Your task to perform on an android device: turn pop-ups on in chrome Image 0: 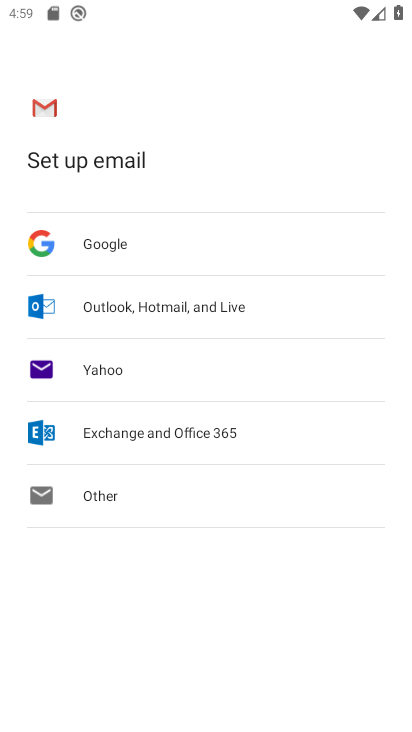
Step 0: press home button
Your task to perform on an android device: turn pop-ups on in chrome Image 1: 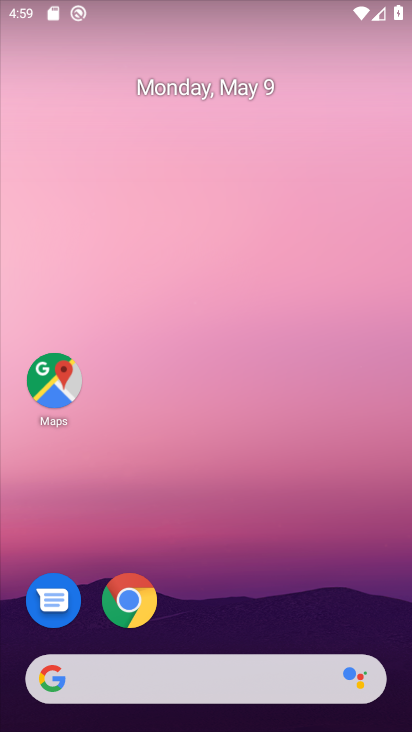
Step 1: drag from (292, 653) to (276, 139)
Your task to perform on an android device: turn pop-ups on in chrome Image 2: 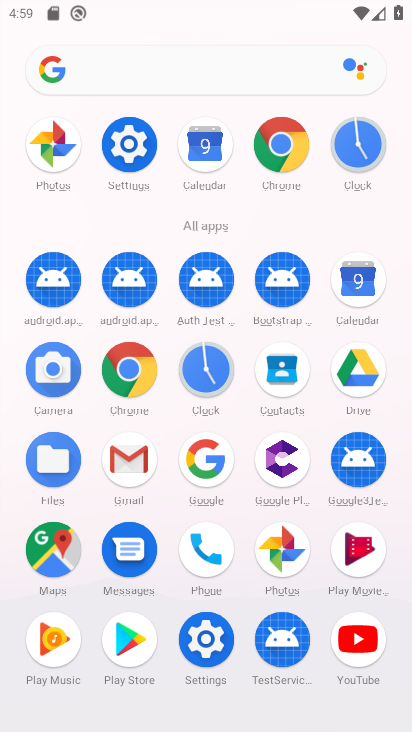
Step 2: click (124, 370)
Your task to perform on an android device: turn pop-ups on in chrome Image 3: 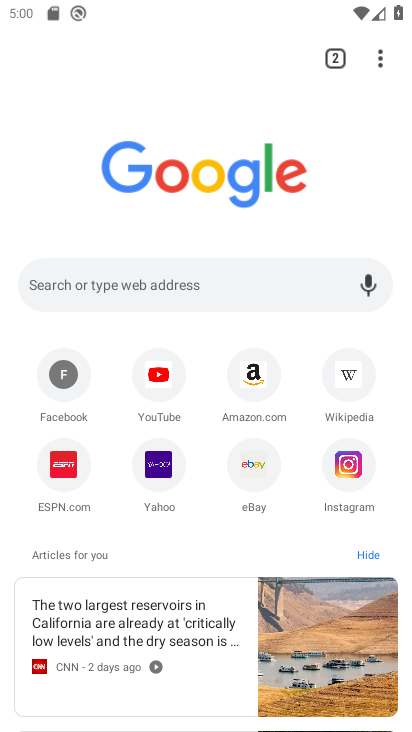
Step 3: click (380, 58)
Your task to perform on an android device: turn pop-ups on in chrome Image 4: 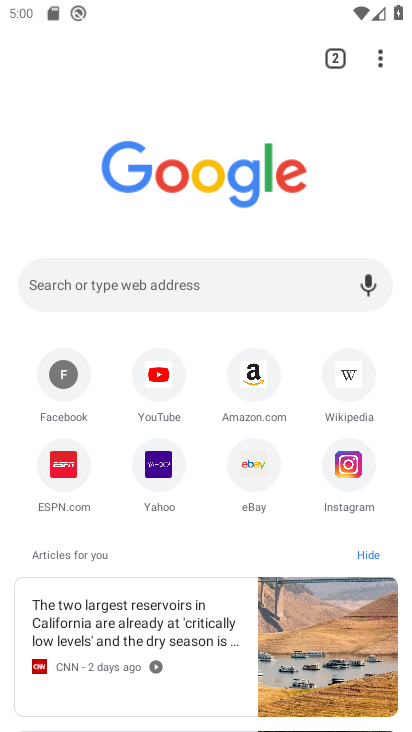
Step 4: click (372, 52)
Your task to perform on an android device: turn pop-ups on in chrome Image 5: 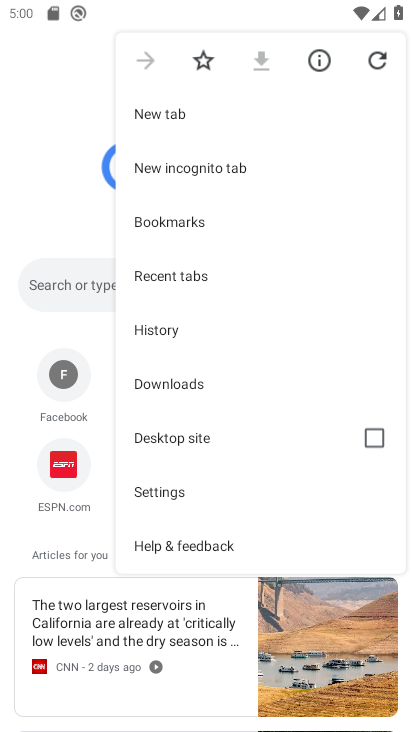
Step 5: click (215, 494)
Your task to perform on an android device: turn pop-ups on in chrome Image 6: 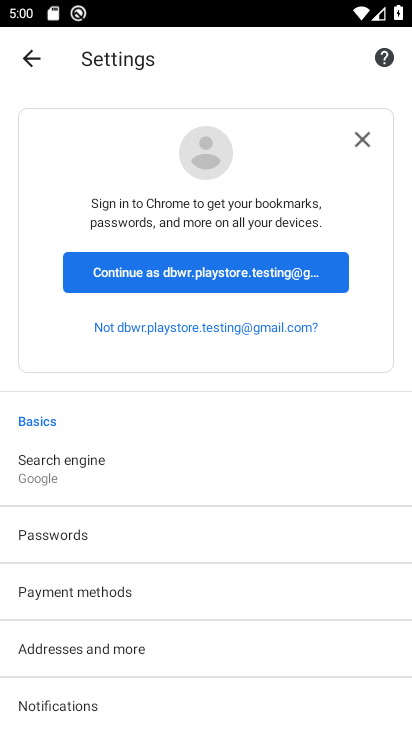
Step 6: drag from (102, 708) to (157, 403)
Your task to perform on an android device: turn pop-ups on in chrome Image 7: 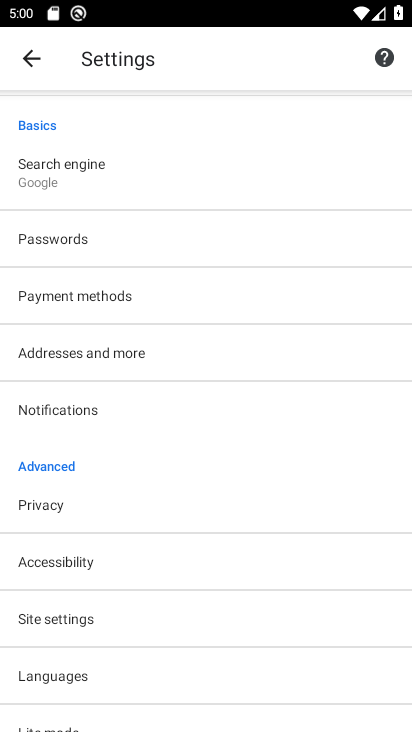
Step 7: click (87, 619)
Your task to perform on an android device: turn pop-ups on in chrome Image 8: 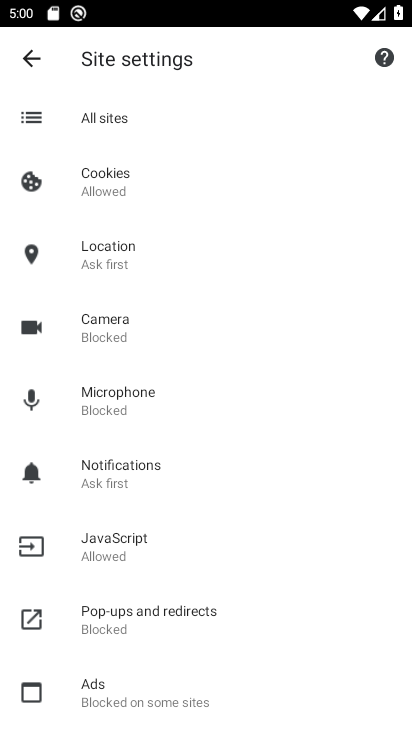
Step 8: click (176, 605)
Your task to perform on an android device: turn pop-ups on in chrome Image 9: 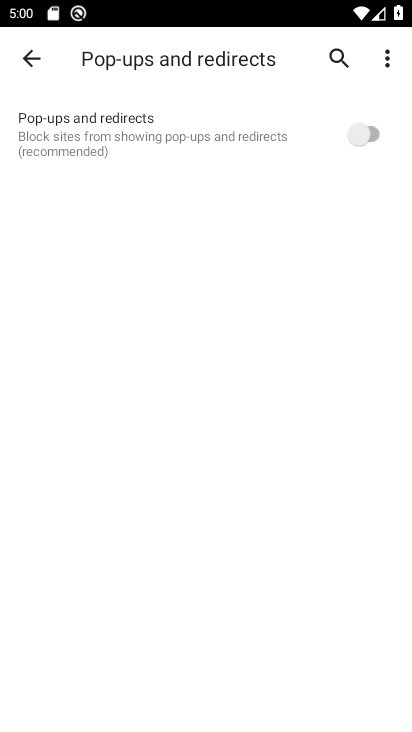
Step 9: click (377, 135)
Your task to perform on an android device: turn pop-ups on in chrome Image 10: 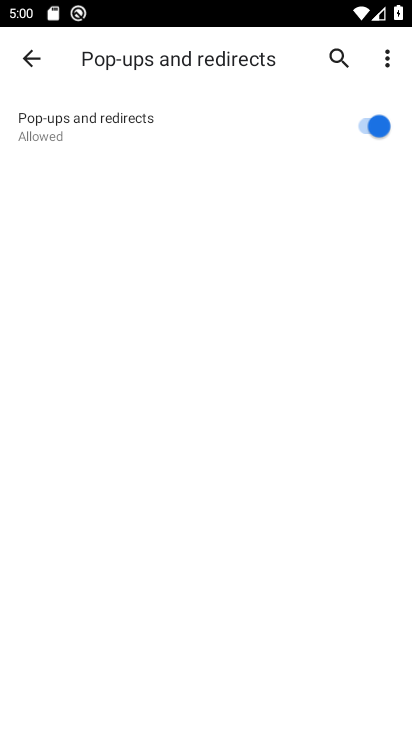
Step 10: task complete